Your task to perform on an android device: What's on my calendar today? Image 0: 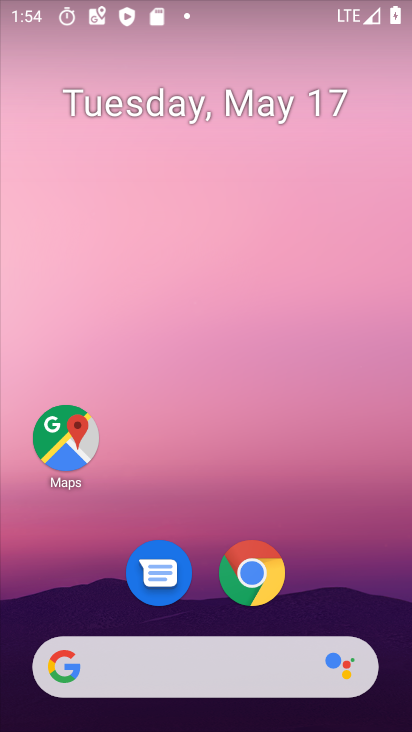
Step 0: drag from (290, 711) to (235, 58)
Your task to perform on an android device: What's on my calendar today? Image 1: 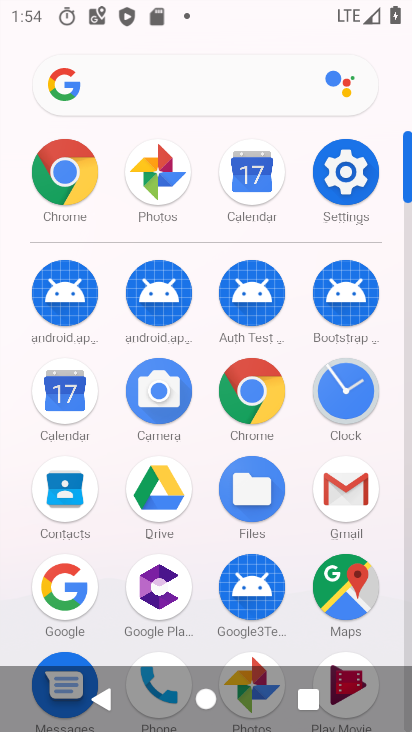
Step 1: click (85, 390)
Your task to perform on an android device: What's on my calendar today? Image 2: 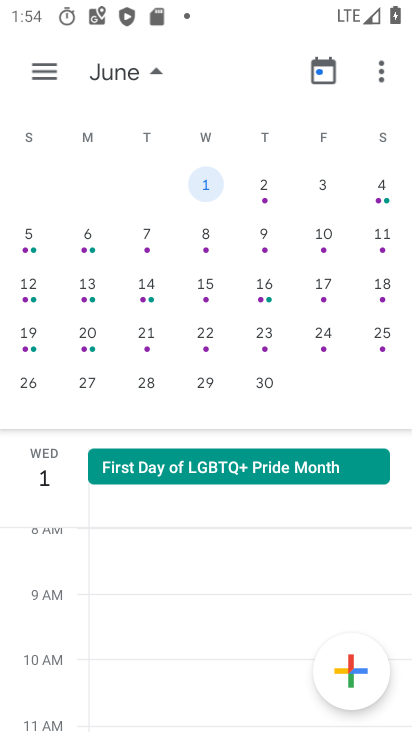
Step 2: drag from (67, 255) to (403, 245)
Your task to perform on an android device: What's on my calendar today? Image 3: 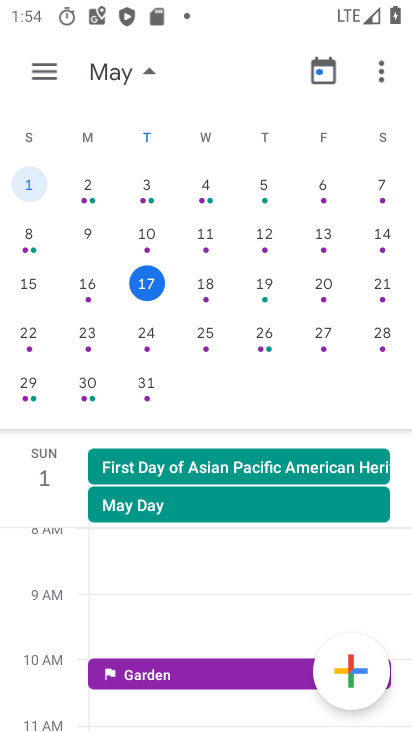
Step 3: click (144, 282)
Your task to perform on an android device: What's on my calendar today? Image 4: 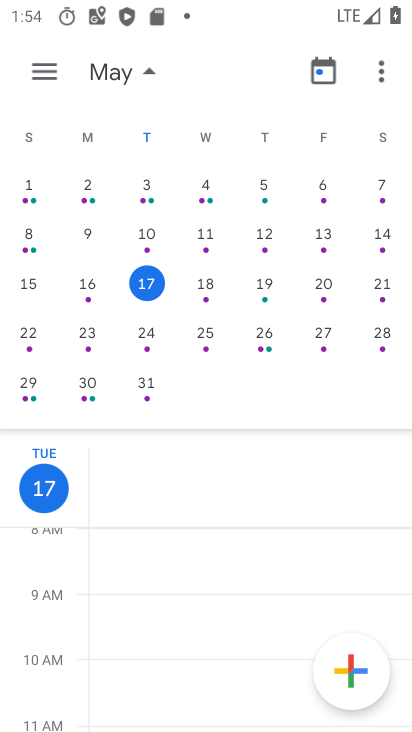
Step 4: task complete